Your task to perform on an android device: Open Maps and search for coffee Image 0: 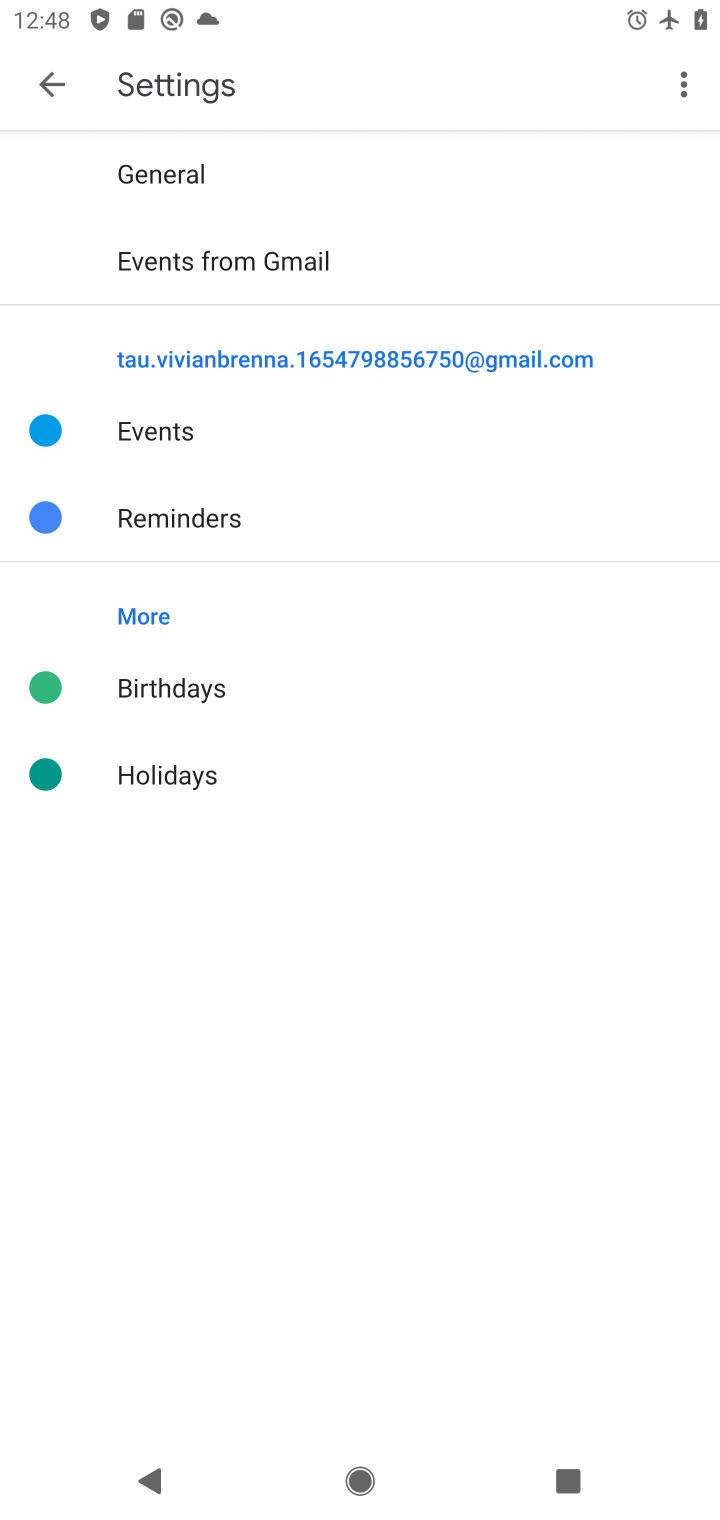
Step 0: press home button
Your task to perform on an android device: Open Maps and search for coffee Image 1: 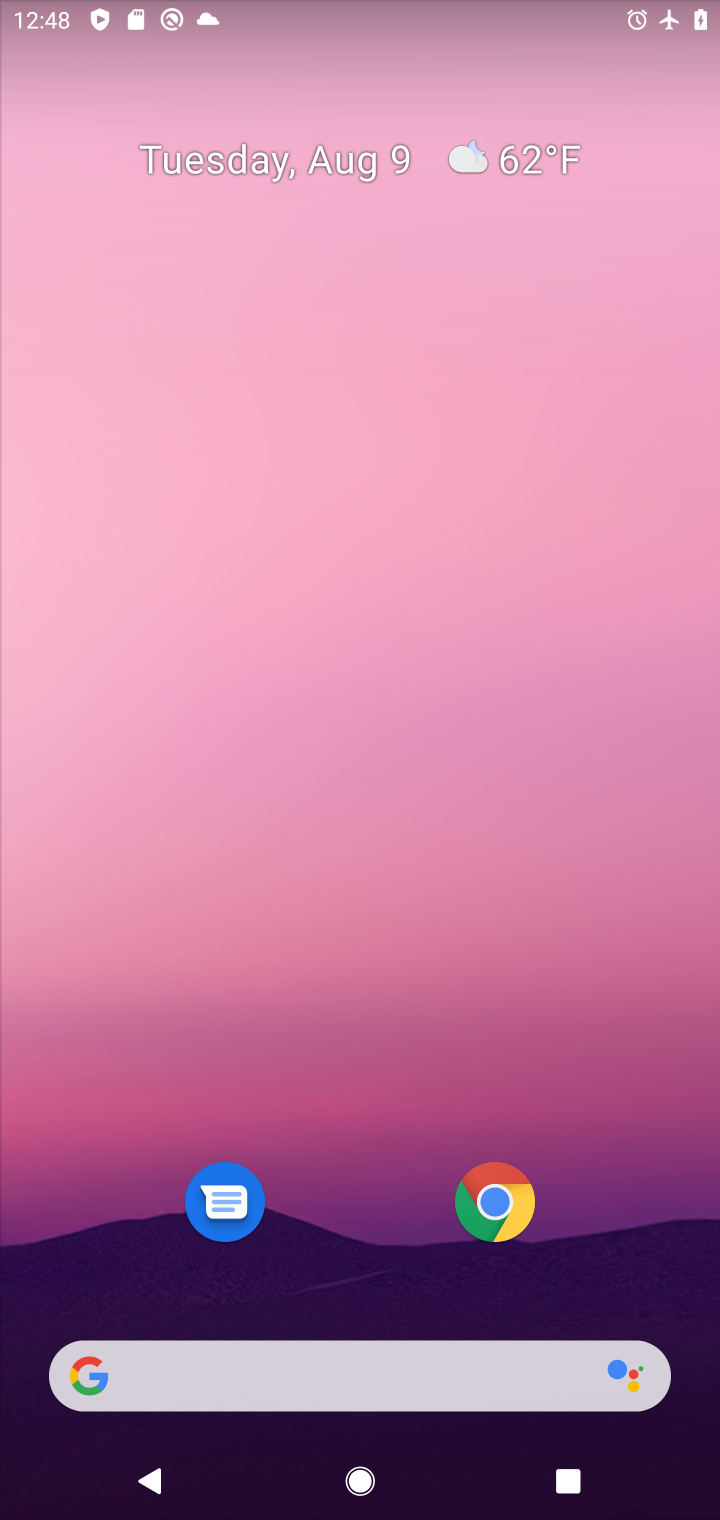
Step 1: drag from (350, 1197) to (276, 13)
Your task to perform on an android device: Open Maps and search for coffee Image 2: 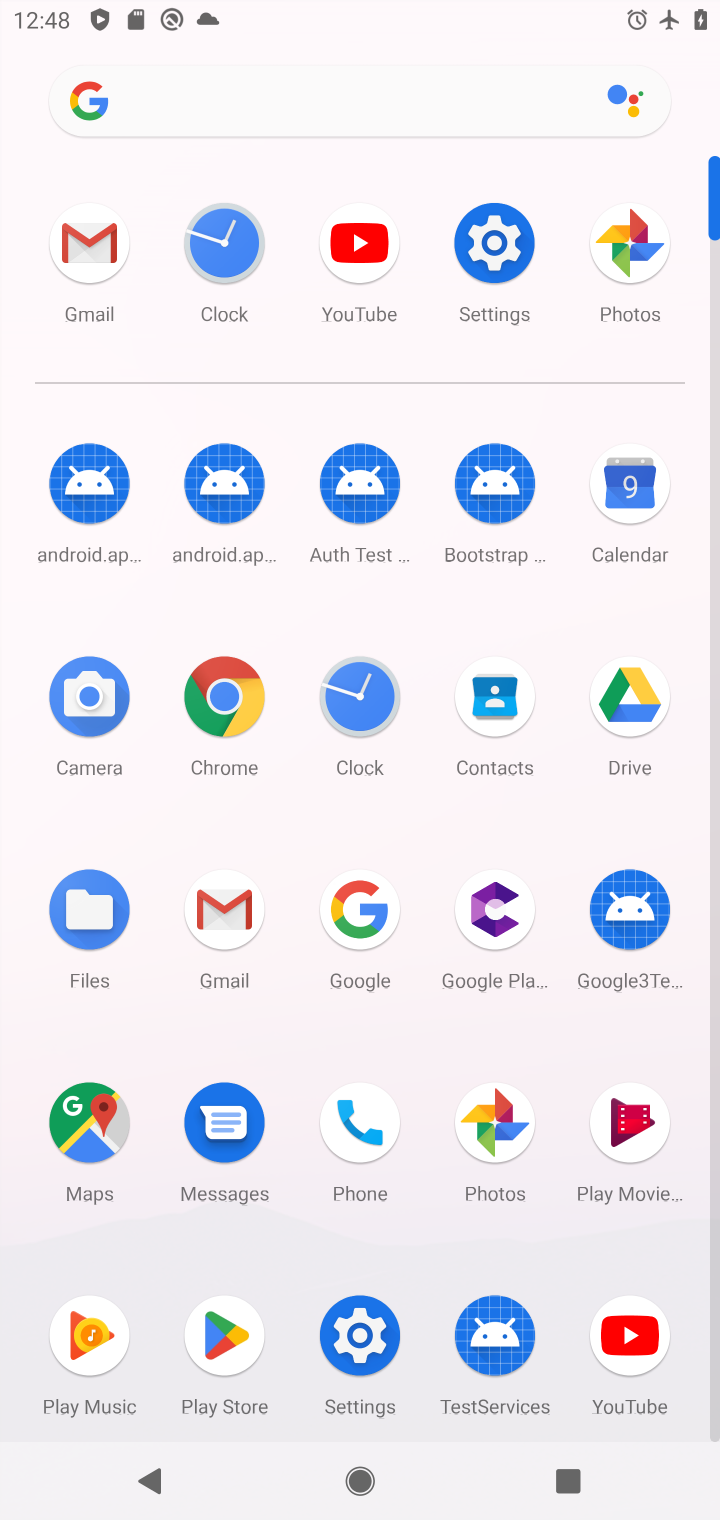
Step 2: click (72, 1133)
Your task to perform on an android device: Open Maps and search for coffee Image 3: 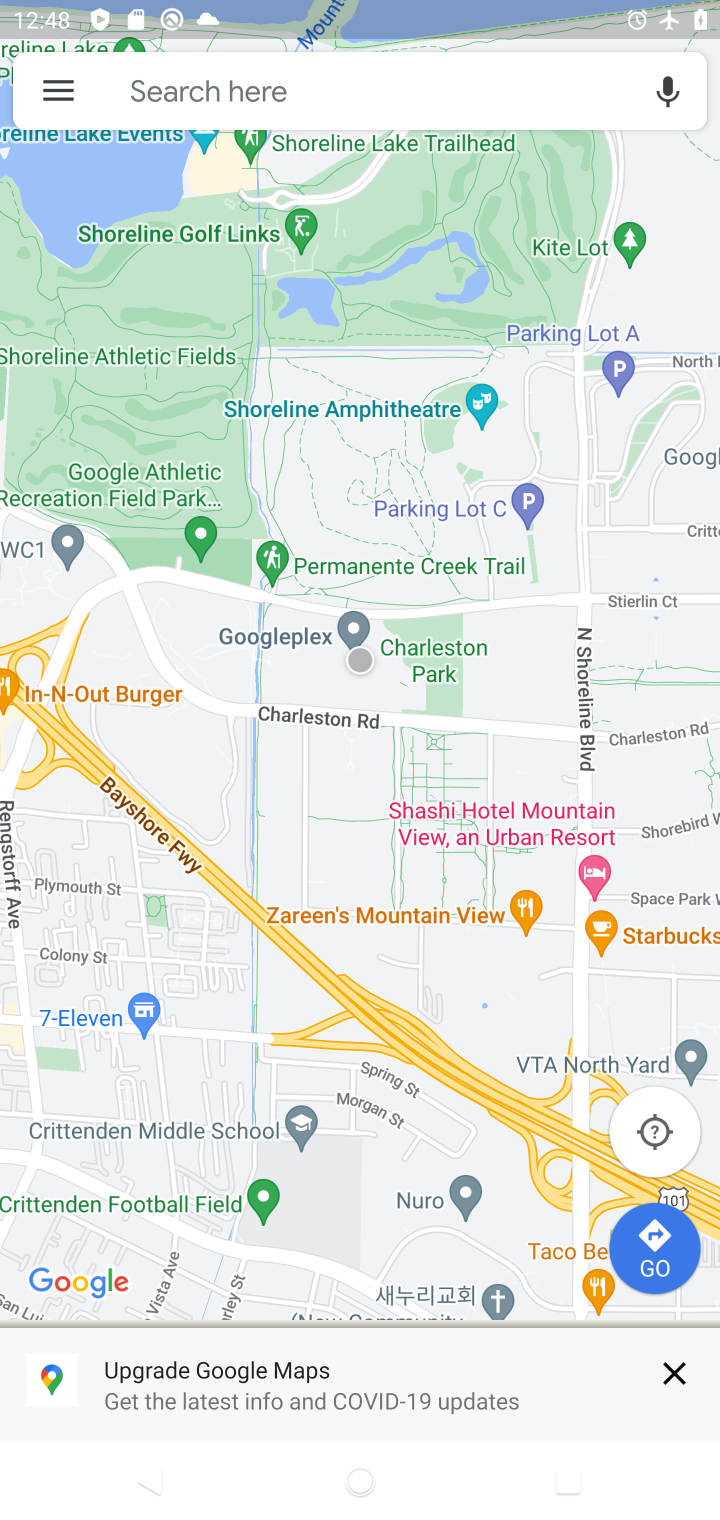
Step 3: click (357, 67)
Your task to perform on an android device: Open Maps and search for coffee Image 4: 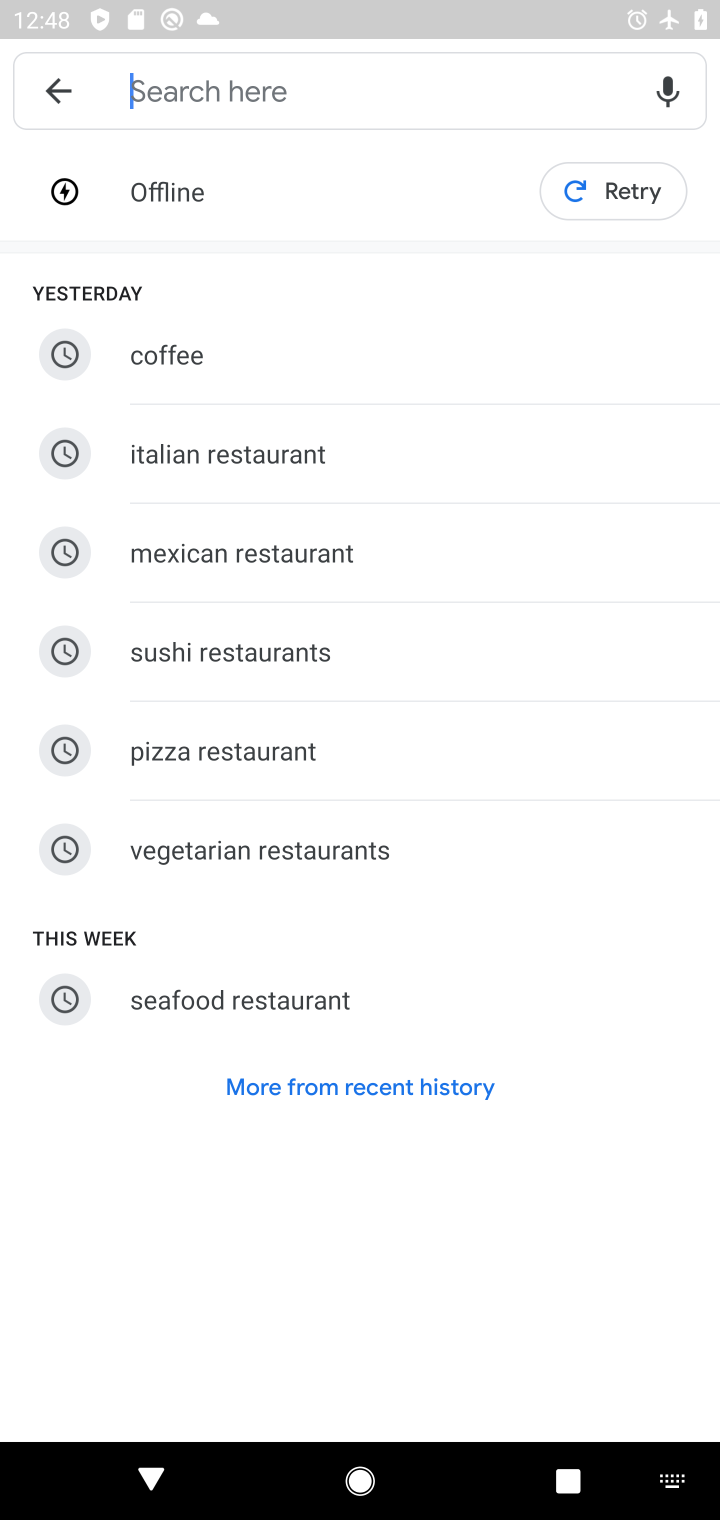
Step 4: click (200, 351)
Your task to perform on an android device: Open Maps and search for coffee Image 5: 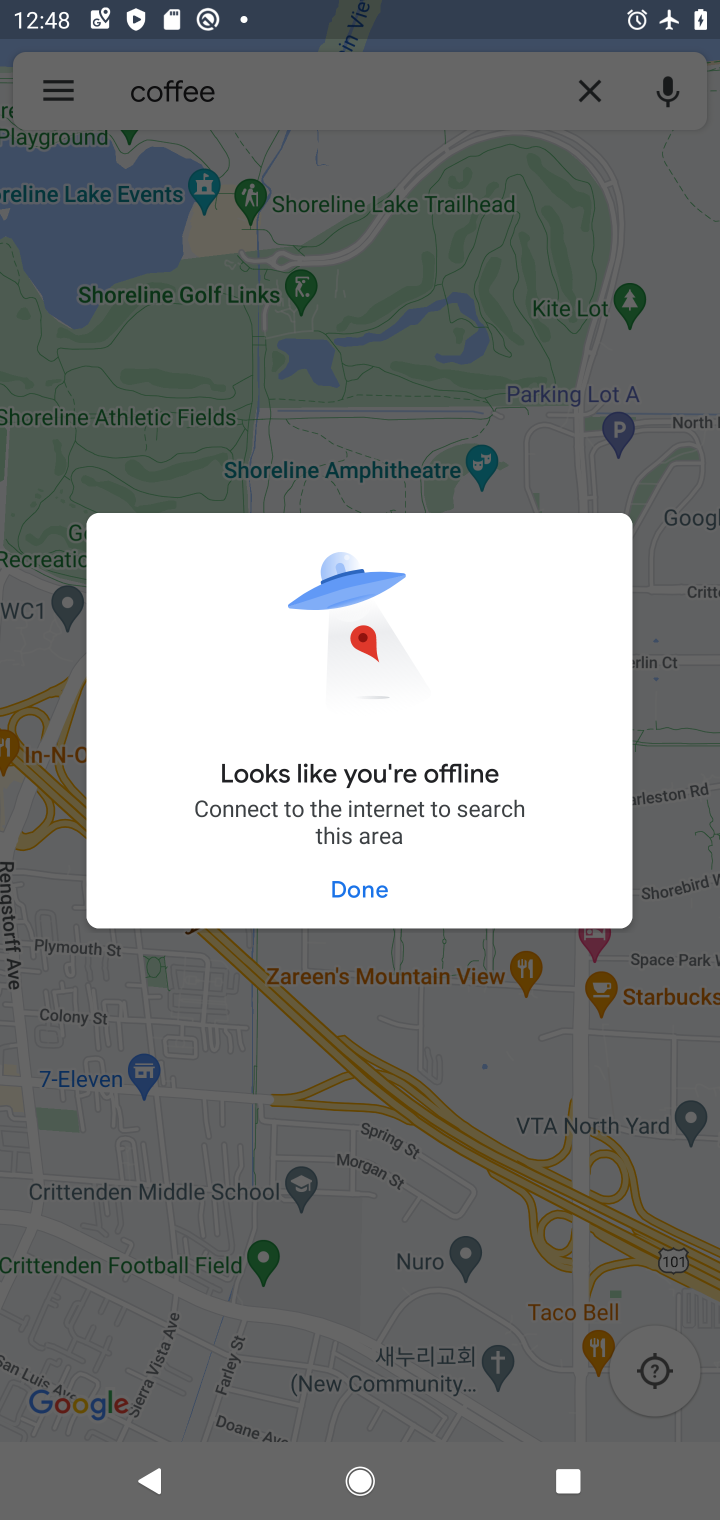
Step 5: task complete